Your task to perform on an android device: turn on priority inbox in the gmail app Image 0: 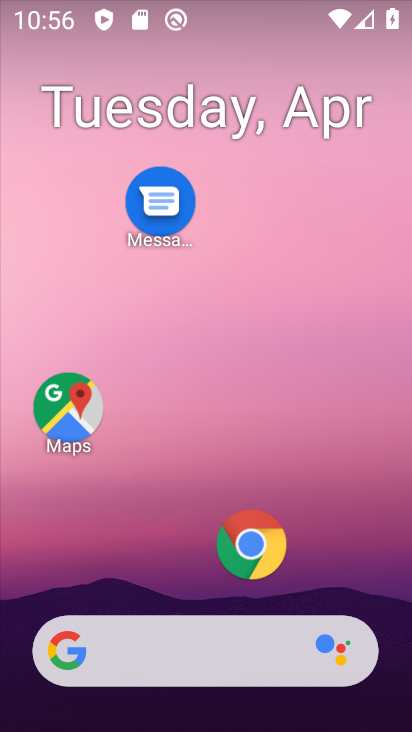
Step 0: drag from (143, 275) to (185, 0)
Your task to perform on an android device: turn on priority inbox in the gmail app Image 1: 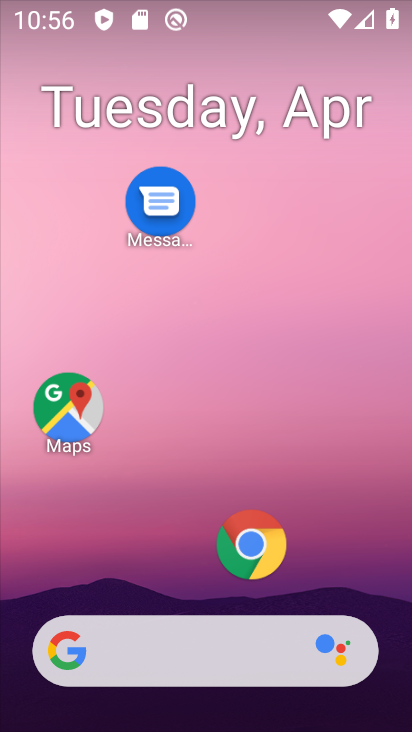
Step 1: drag from (185, 537) to (285, 0)
Your task to perform on an android device: turn on priority inbox in the gmail app Image 2: 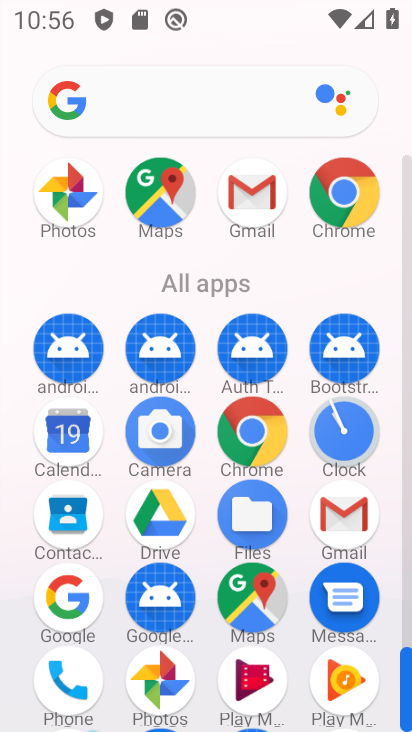
Step 2: click (348, 514)
Your task to perform on an android device: turn on priority inbox in the gmail app Image 3: 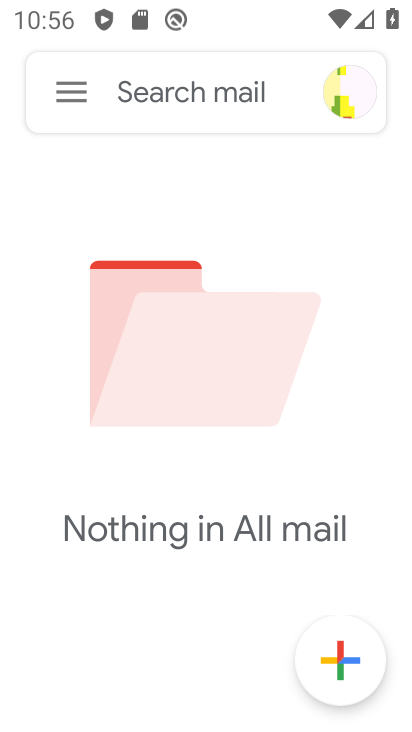
Step 3: click (64, 80)
Your task to perform on an android device: turn on priority inbox in the gmail app Image 4: 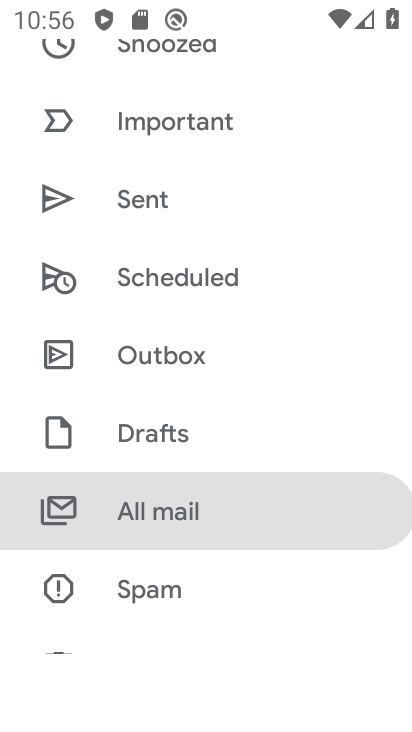
Step 4: drag from (164, 585) to (216, 50)
Your task to perform on an android device: turn on priority inbox in the gmail app Image 5: 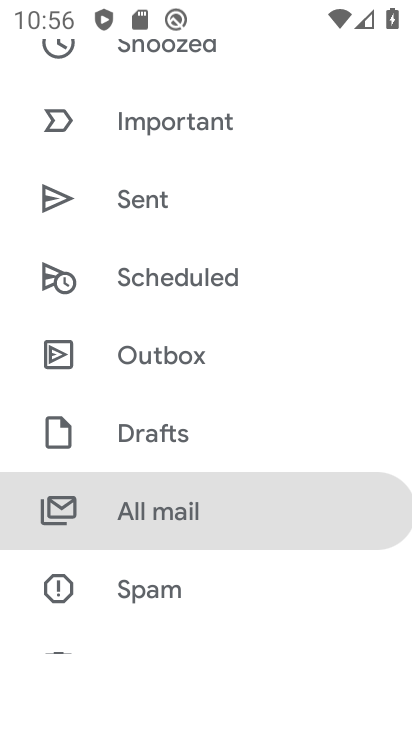
Step 5: drag from (170, 518) to (231, 27)
Your task to perform on an android device: turn on priority inbox in the gmail app Image 6: 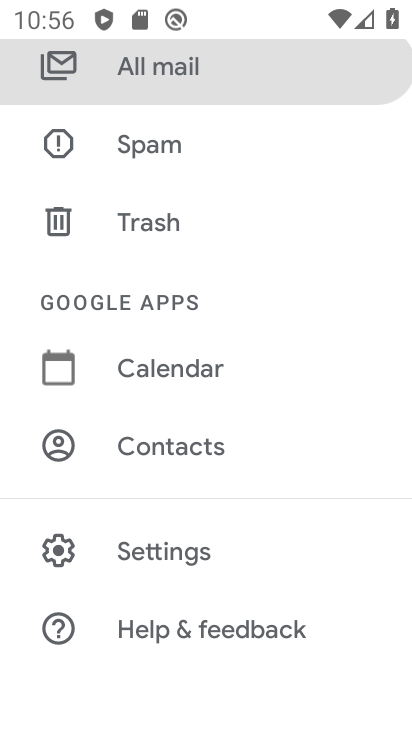
Step 6: click (157, 518)
Your task to perform on an android device: turn on priority inbox in the gmail app Image 7: 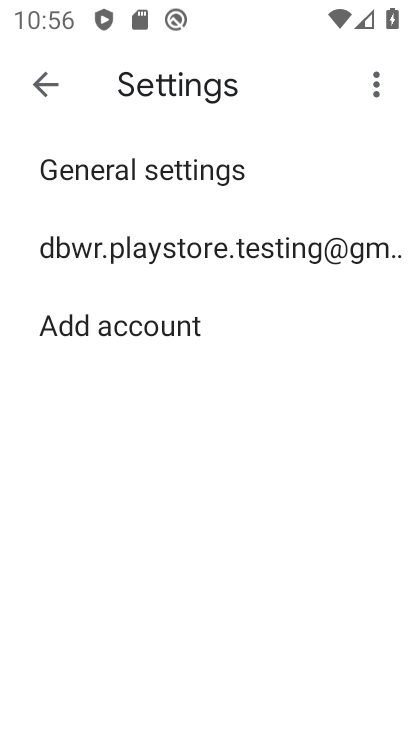
Step 7: click (152, 253)
Your task to perform on an android device: turn on priority inbox in the gmail app Image 8: 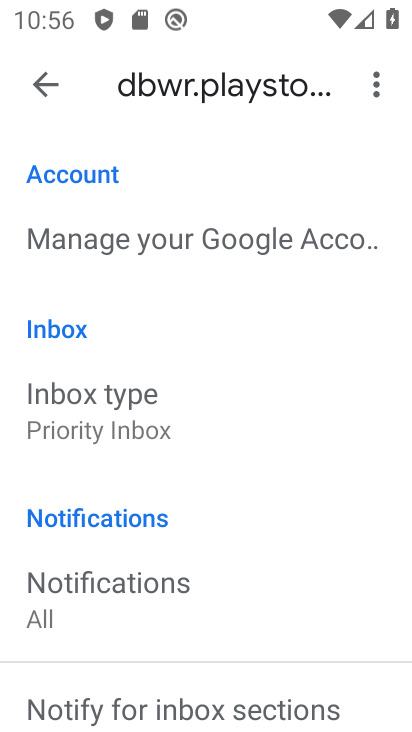
Step 8: click (91, 400)
Your task to perform on an android device: turn on priority inbox in the gmail app Image 9: 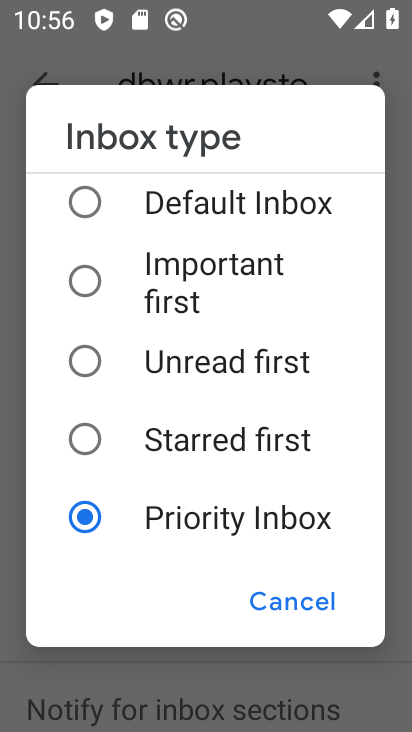
Step 9: task complete